Your task to perform on an android device: open app "Reddit" (install if not already installed) and go to login screen Image 0: 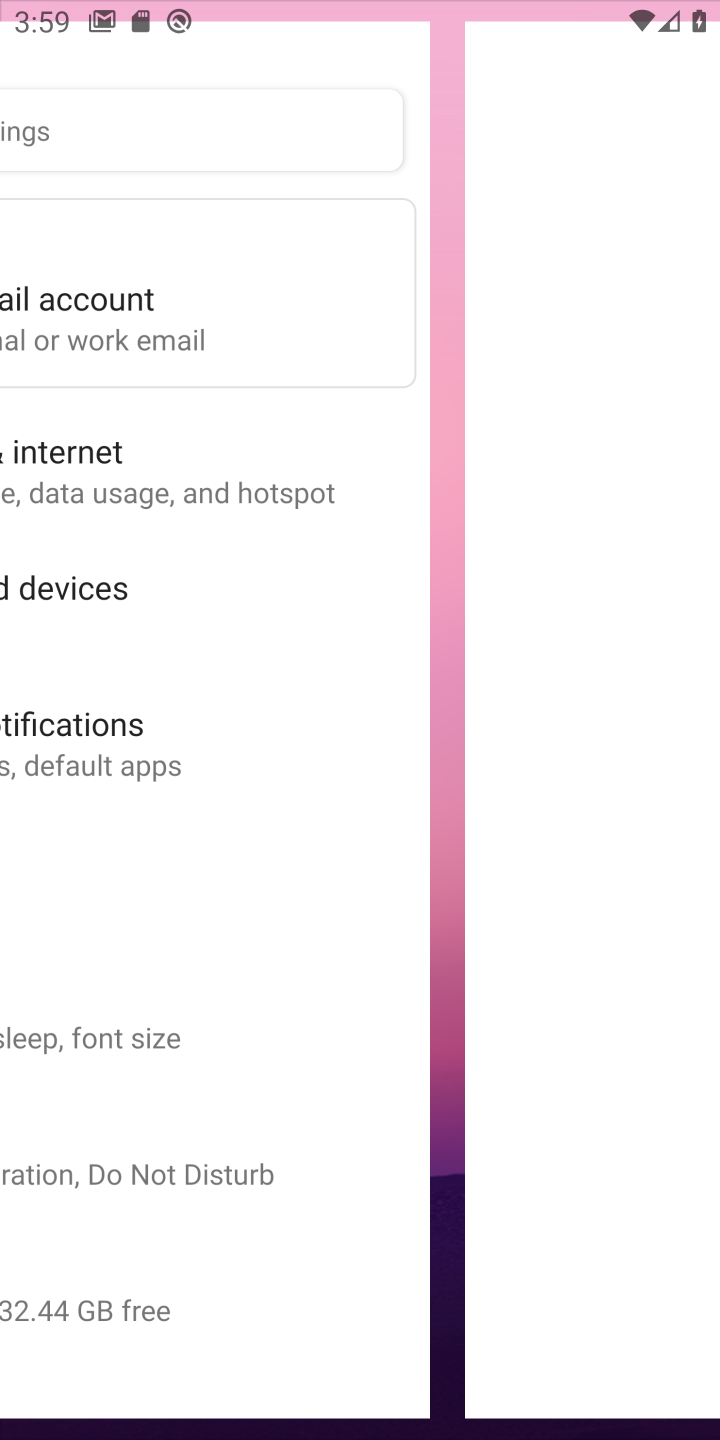
Step 0: press home button
Your task to perform on an android device: open app "Reddit" (install if not already installed) and go to login screen Image 1: 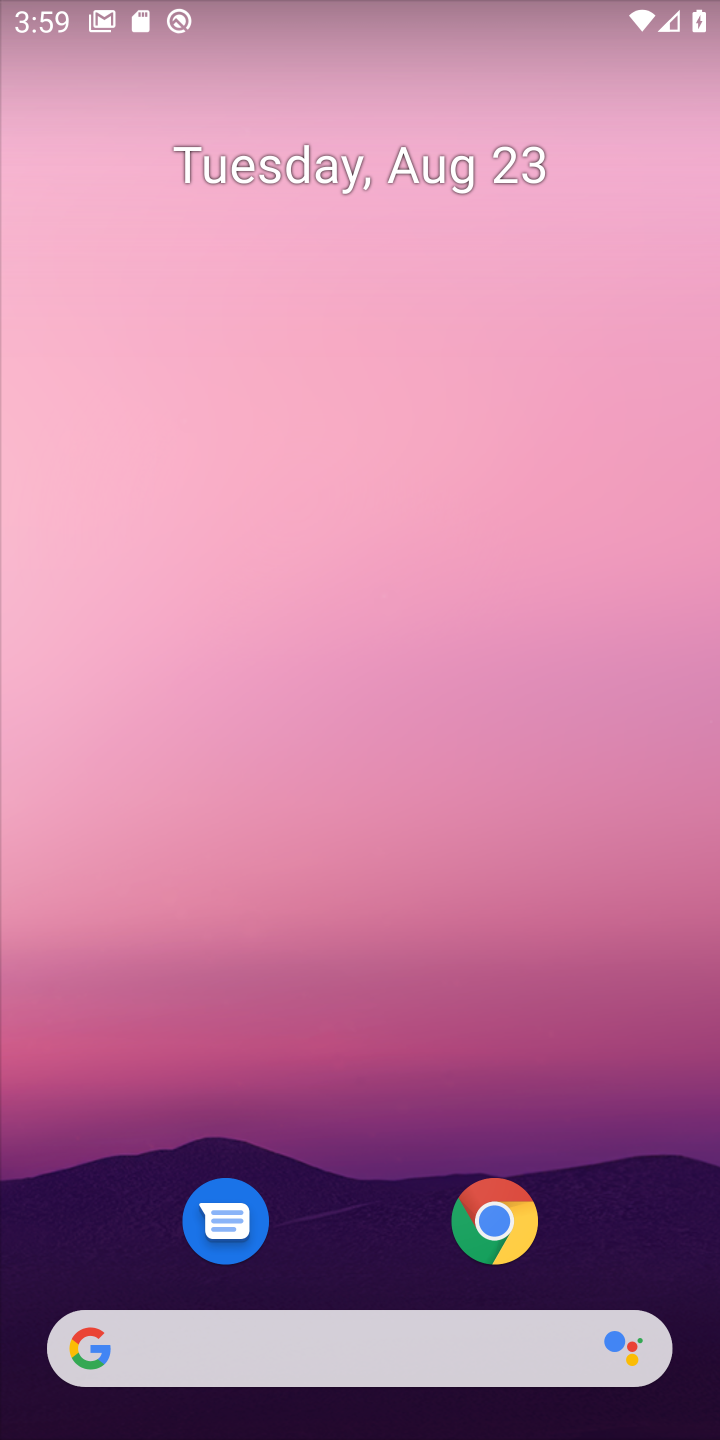
Step 1: press home button
Your task to perform on an android device: open app "Reddit" (install if not already installed) and go to login screen Image 2: 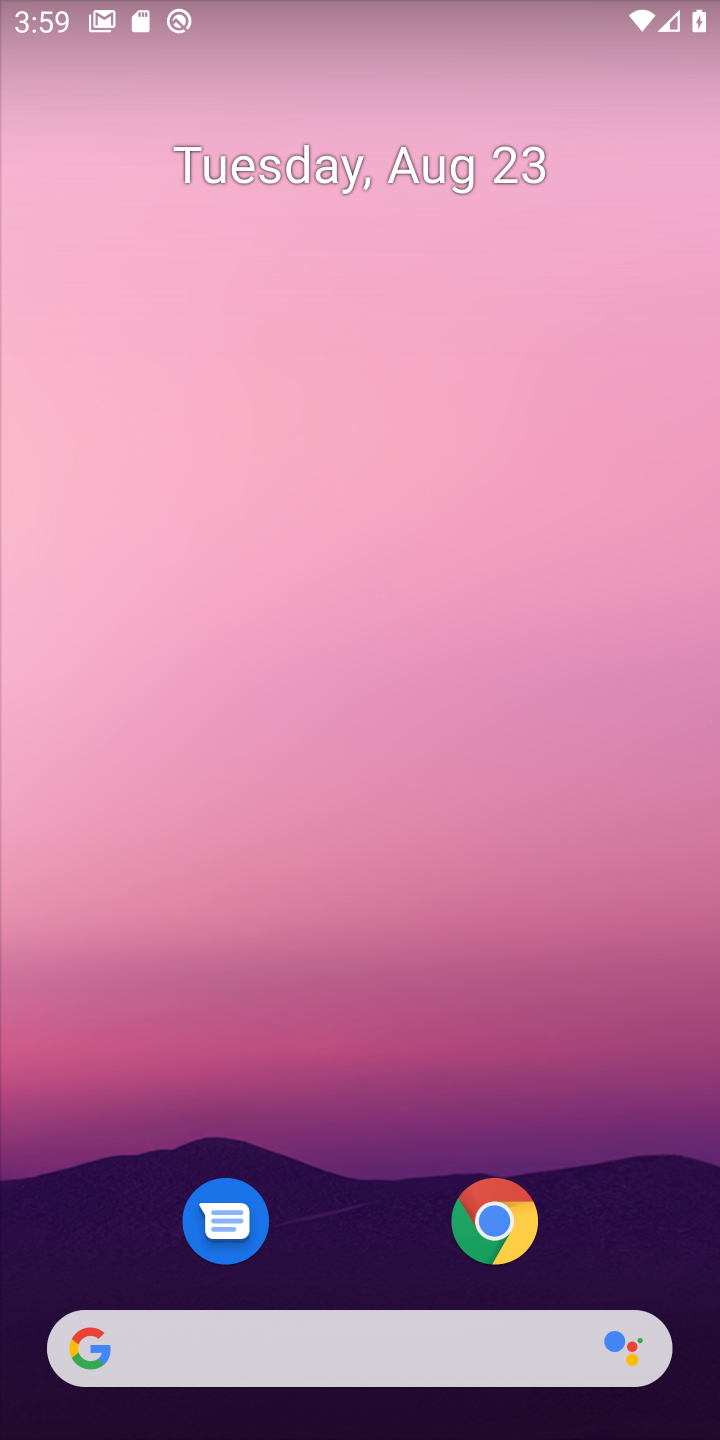
Step 2: click (186, 296)
Your task to perform on an android device: open app "Reddit" (install if not already installed) and go to login screen Image 3: 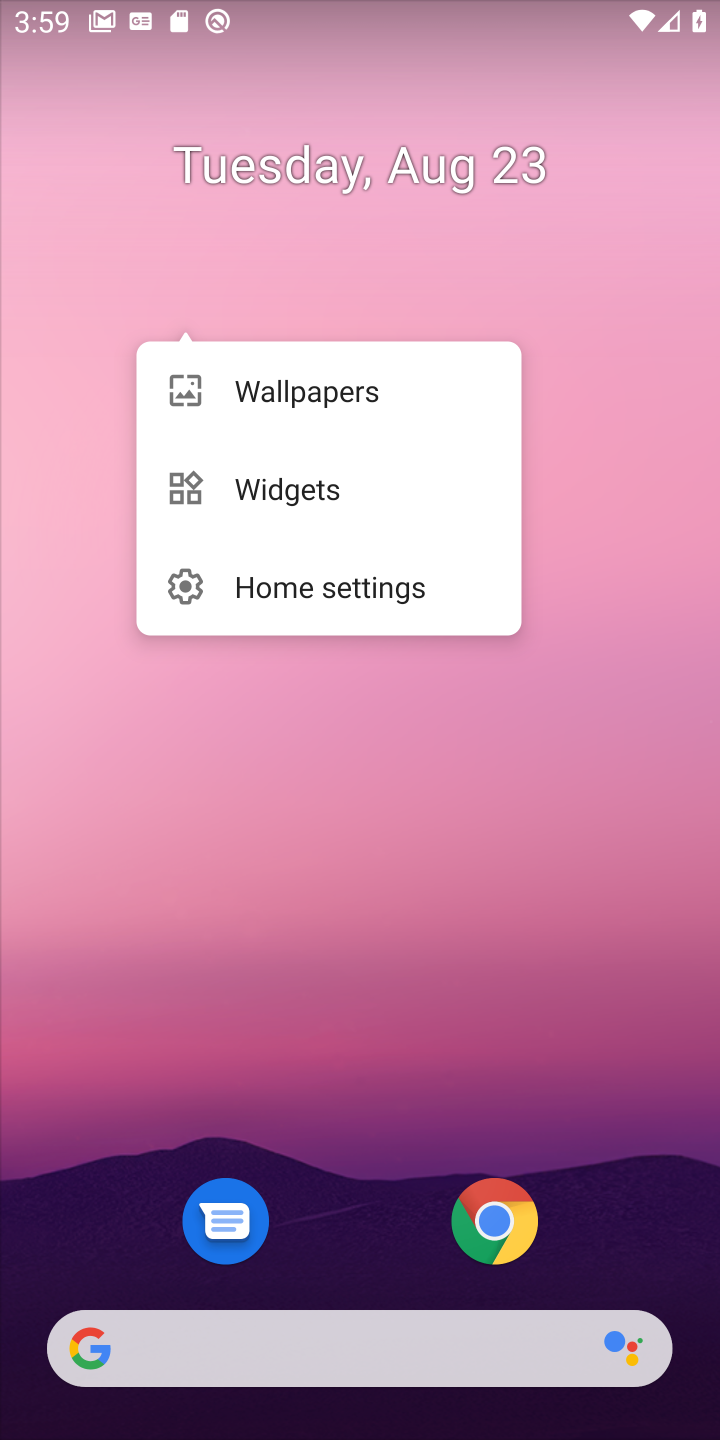
Step 3: drag from (327, 1116) to (305, 71)
Your task to perform on an android device: open app "Reddit" (install if not already installed) and go to login screen Image 4: 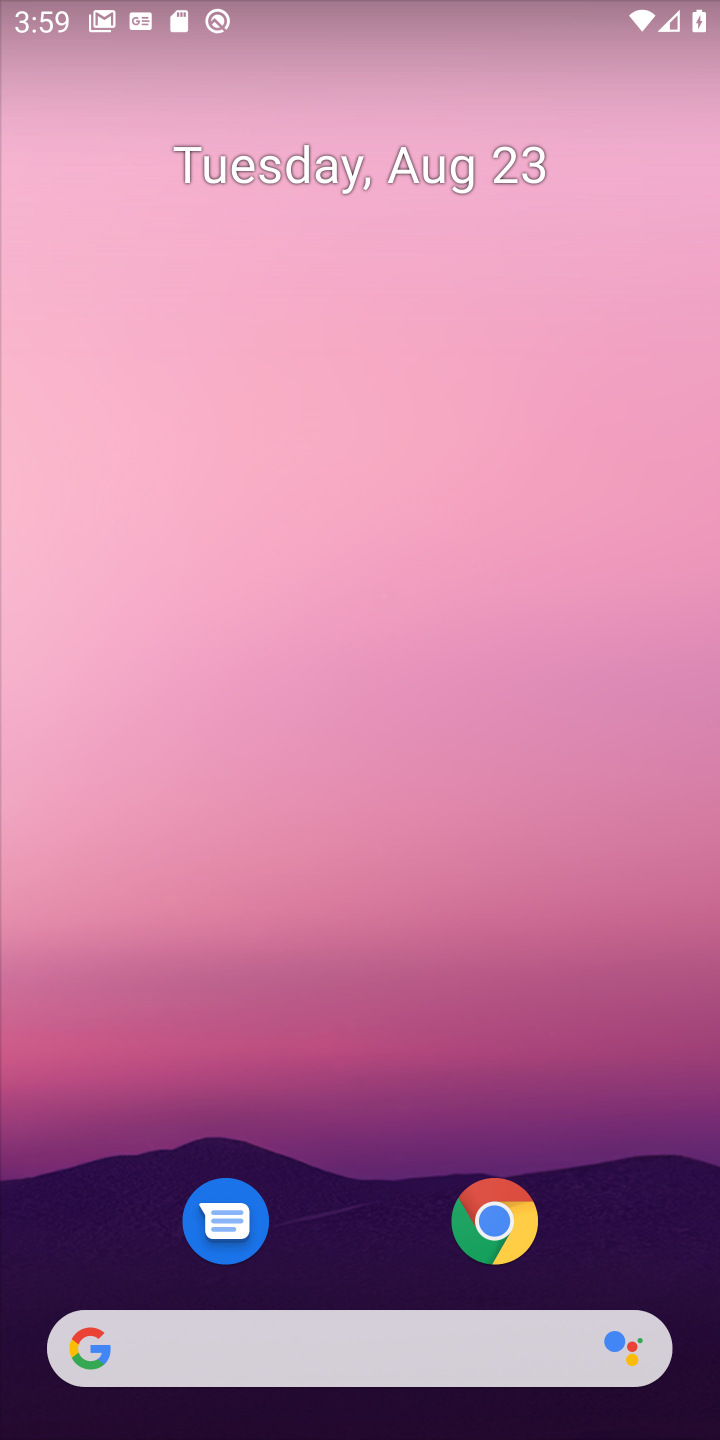
Step 4: drag from (339, 1254) to (345, 19)
Your task to perform on an android device: open app "Reddit" (install if not already installed) and go to login screen Image 5: 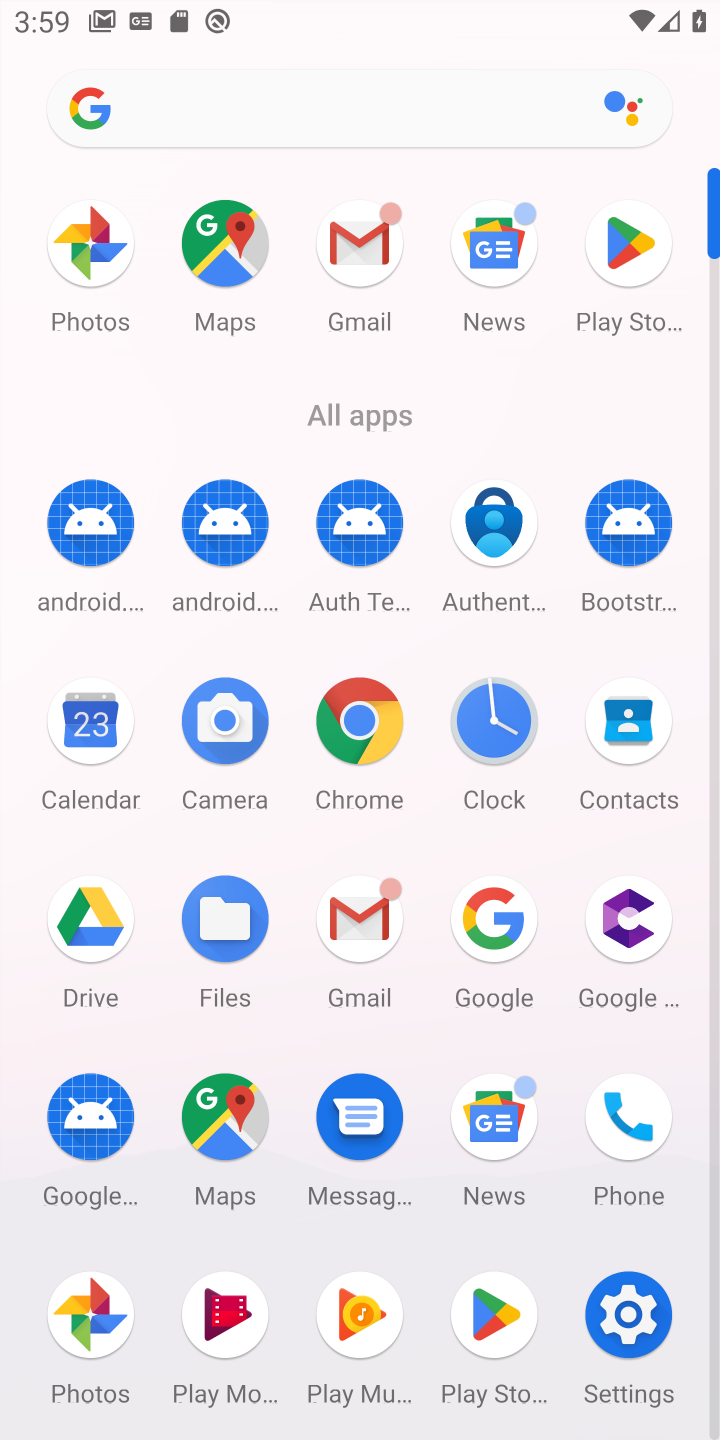
Step 5: click (621, 252)
Your task to perform on an android device: open app "Reddit" (install if not already installed) and go to login screen Image 6: 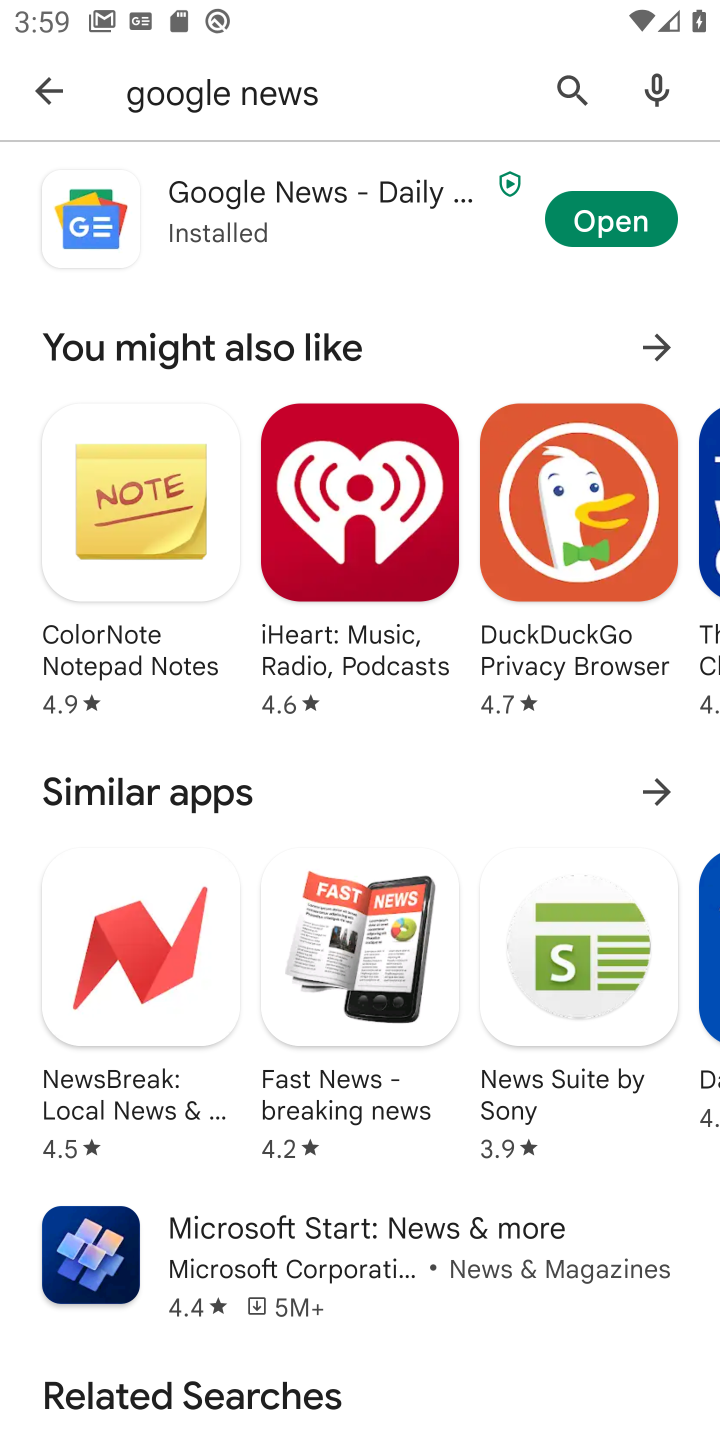
Step 6: click (43, 86)
Your task to perform on an android device: open app "Reddit" (install if not already installed) and go to login screen Image 7: 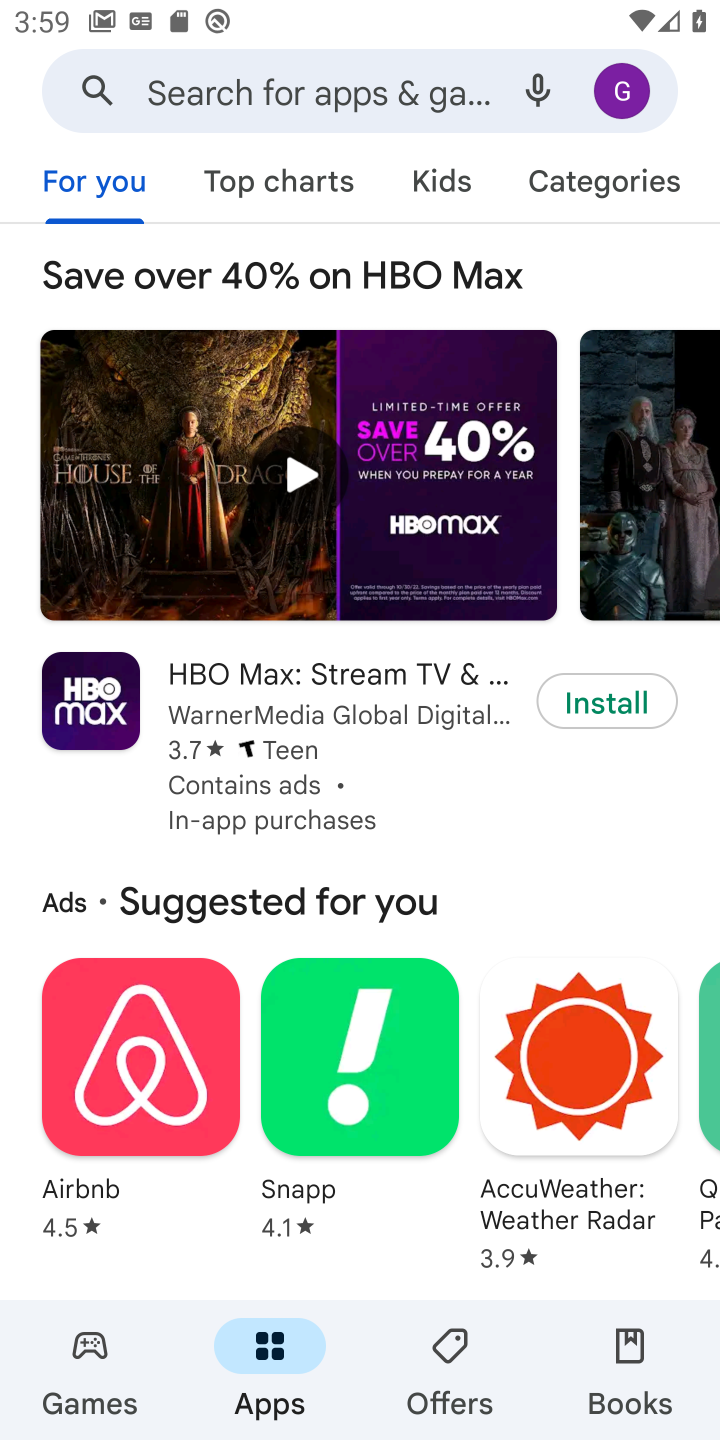
Step 7: click (186, 86)
Your task to perform on an android device: open app "Reddit" (install if not already installed) and go to login screen Image 8: 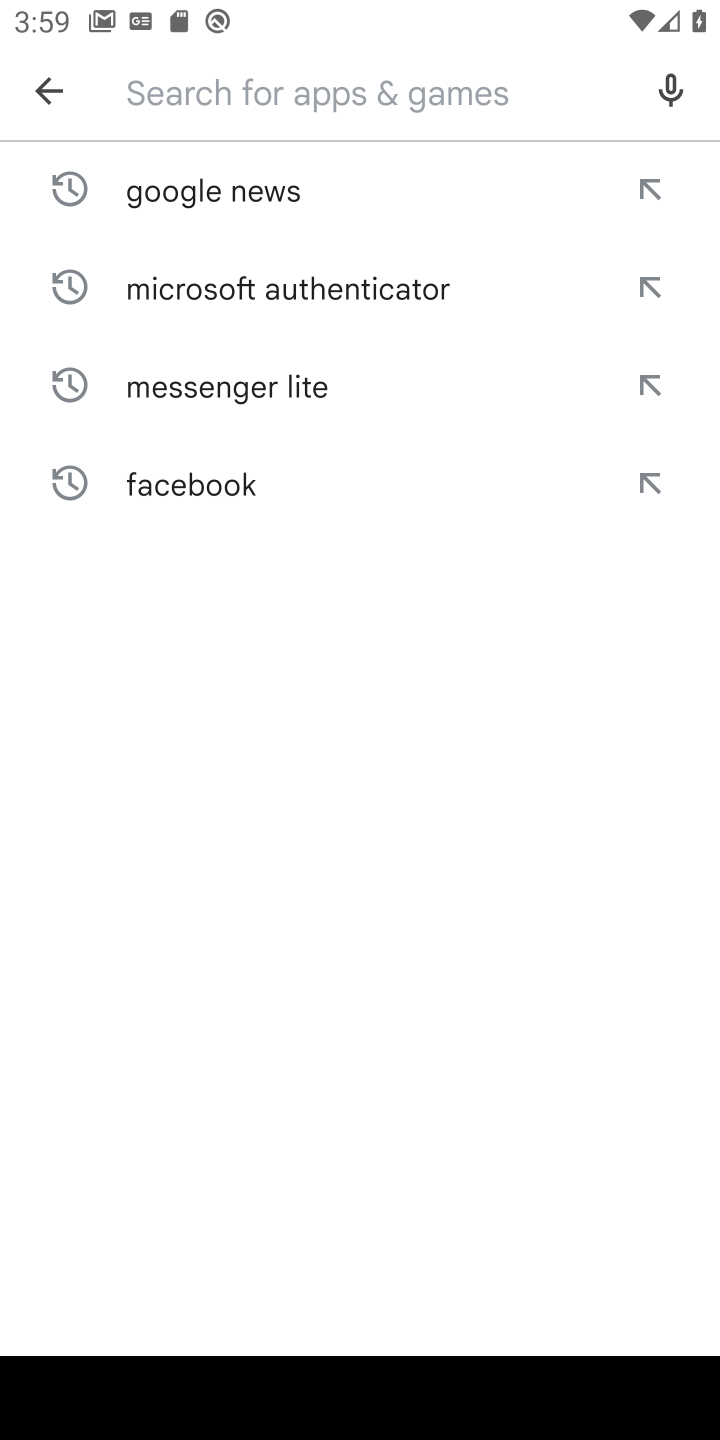
Step 8: type "Reddit"
Your task to perform on an android device: open app "Reddit" (install if not already installed) and go to login screen Image 9: 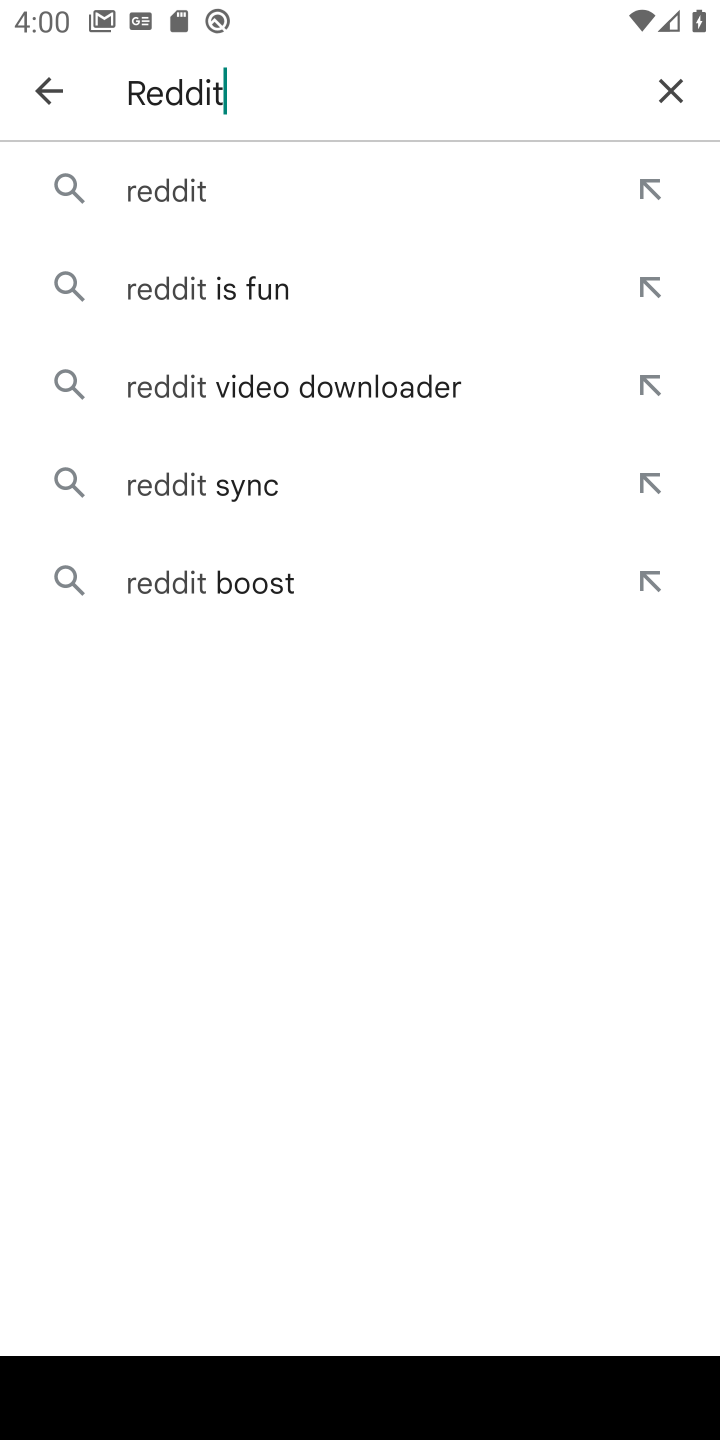
Step 9: click (168, 180)
Your task to perform on an android device: open app "Reddit" (install if not already installed) and go to login screen Image 10: 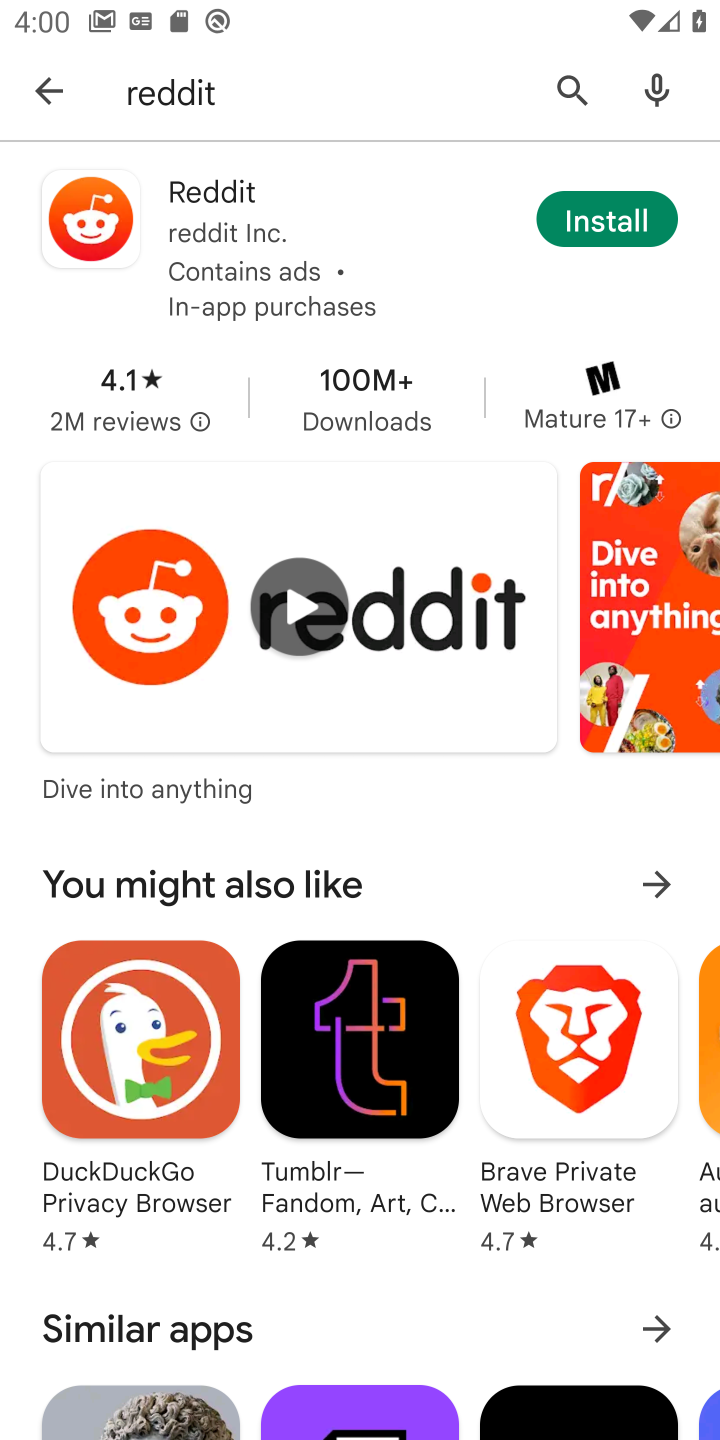
Step 10: click (618, 224)
Your task to perform on an android device: open app "Reddit" (install if not already installed) and go to login screen Image 11: 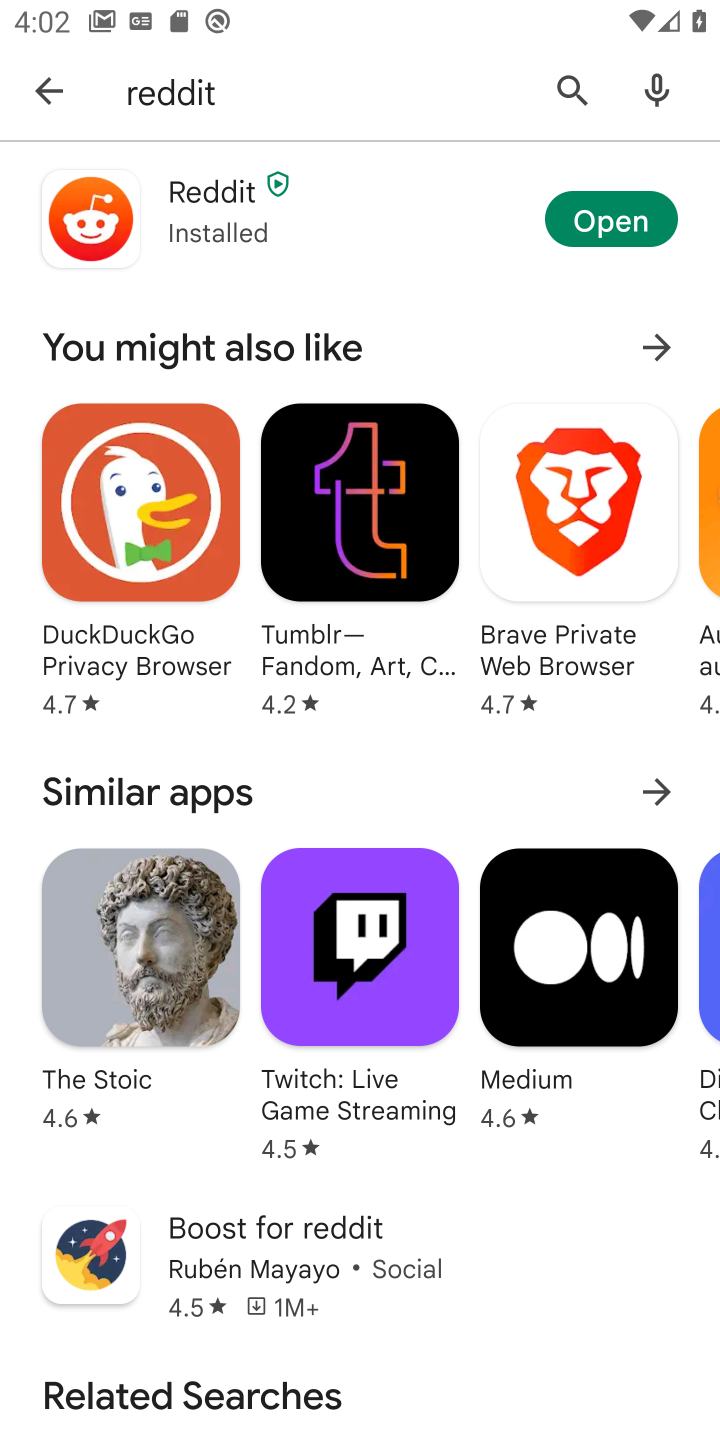
Step 11: click (599, 229)
Your task to perform on an android device: open app "Reddit" (install if not already installed) and go to login screen Image 12: 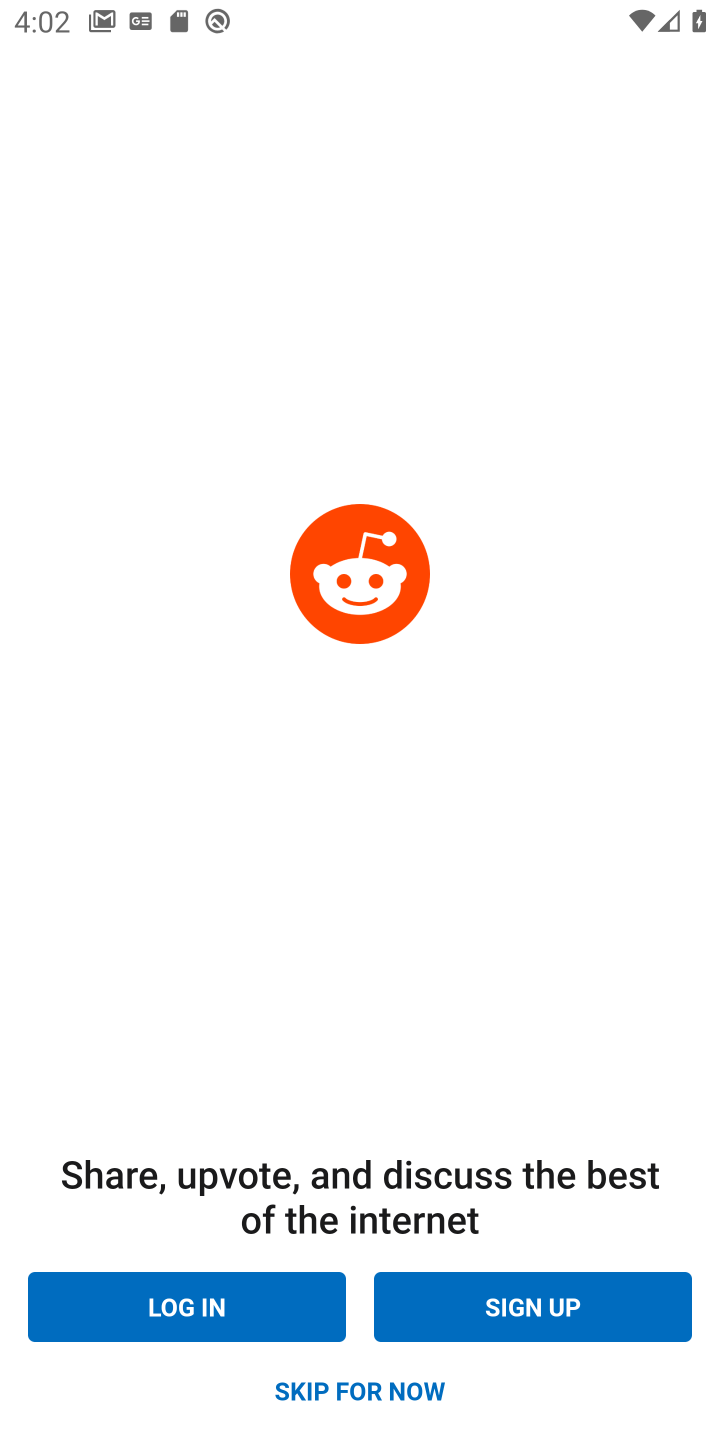
Step 12: task complete